Your task to perform on an android device: Open Google Chrome and click the shortcut for Amazon.com Image 0: 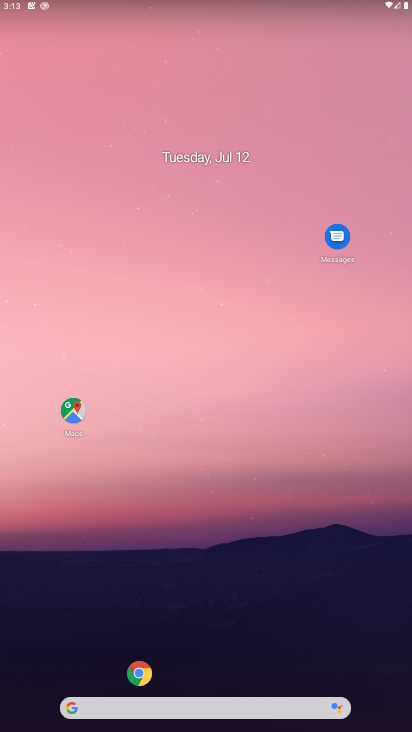
Step 0: click (134, 673)
Your task to perform on an android device: Open Google Chrome and click the shortcut for Amazon.com Image 1: 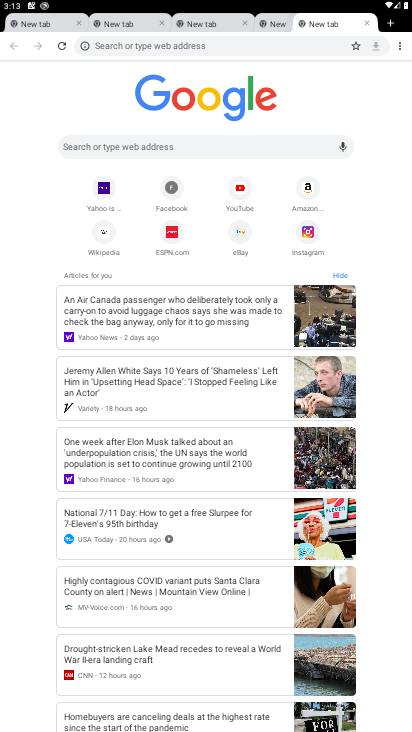
Step 1: click (318, 190)
Your task to perform on an android device: Open Google Chrome and click the shortcut for Amazon.com Image 2: 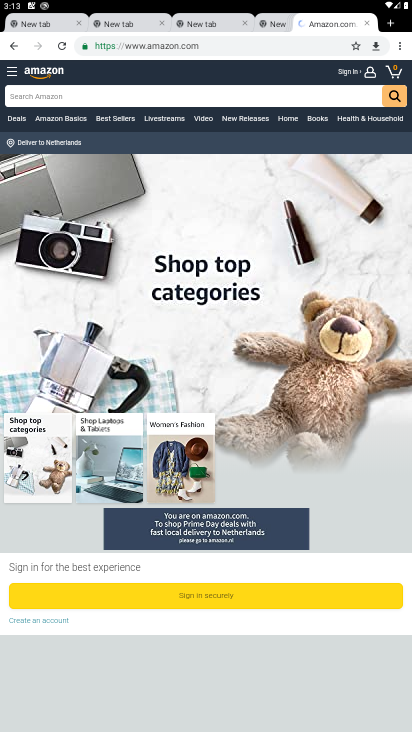
Step 2: task complete